Your task to perform on an android device: Go to notification settings Image 0: 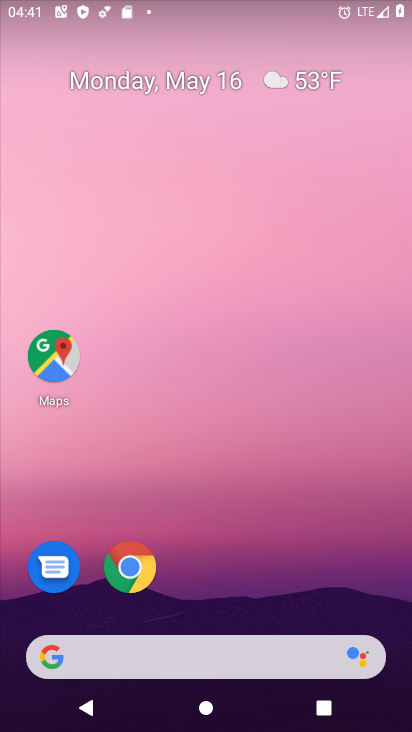
Step 0: drag from (262, 668) to (273, 7)
Your task to perform on an android device: Go to notification settings Image 1: 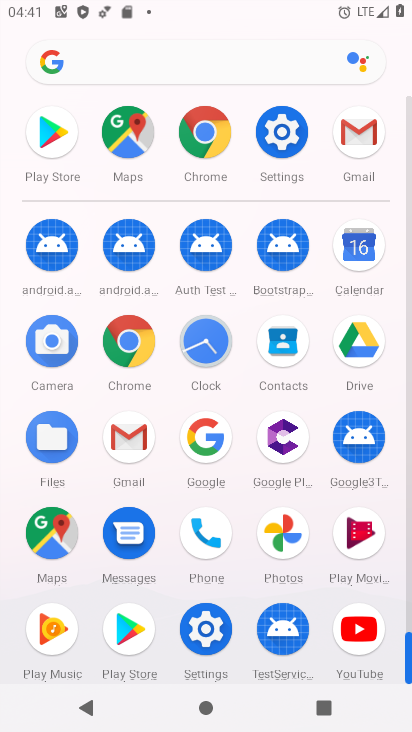
Step 1: click (294, 131)
Your task to perform on an android device: Go to notification settings Image 2: 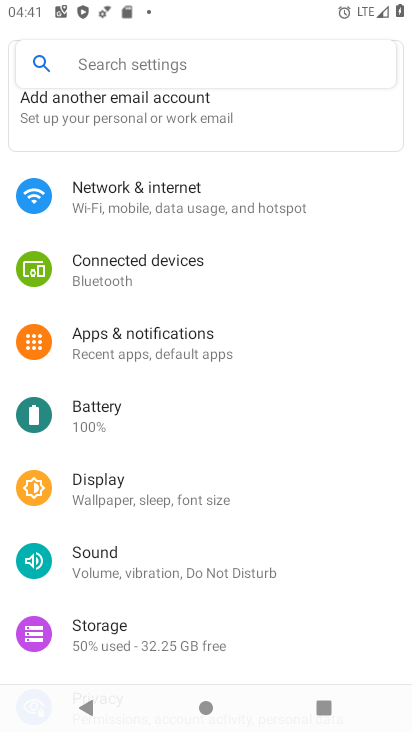
Step 2: click (211, 351)
Your task to perform on an android device: Go to notification settings Image 3: 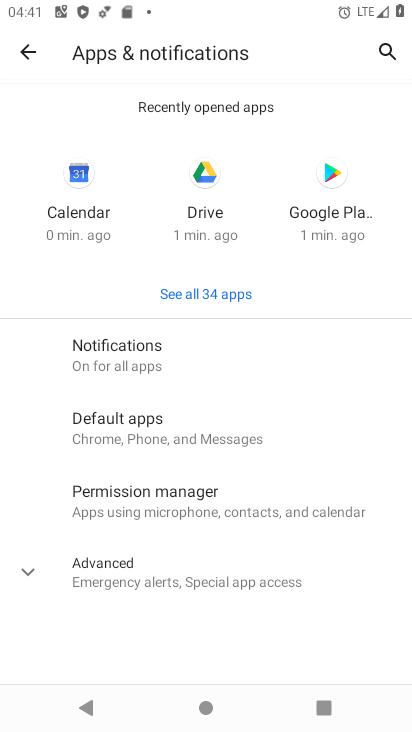
Step 3: task complete